Your task to perform on an android device: delete the emails in spam in the gmail app Image 0: 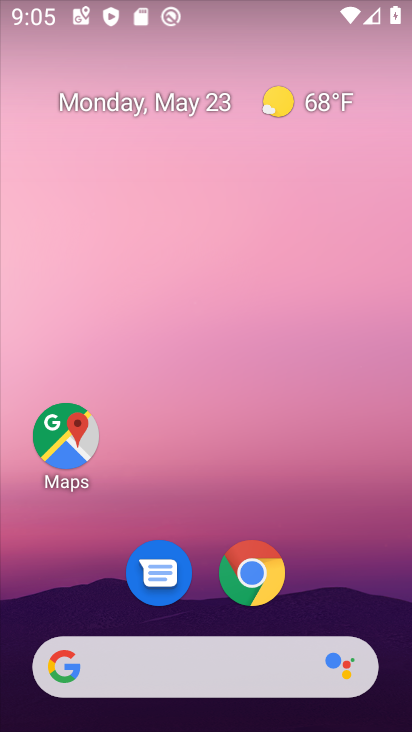
Step 0: drag from (297, 632) to (299, 71)
Your task to perform on an android device: delete the emails in spam in the gmail app Image 1: 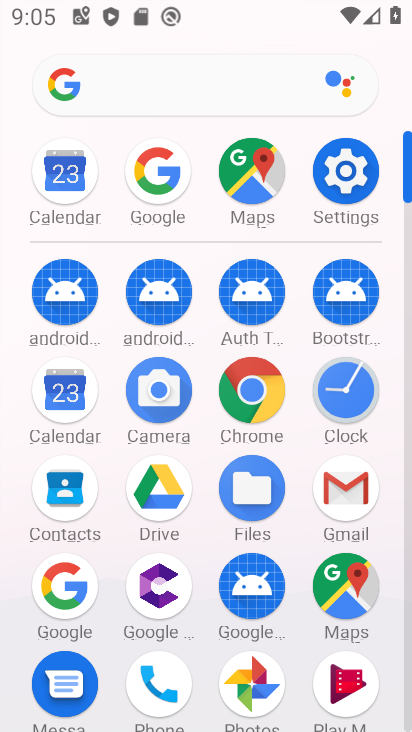
Step 1: click (359, 504)
Your task to perform on an android device: delete the emails in spam in the gmail app Image 2: 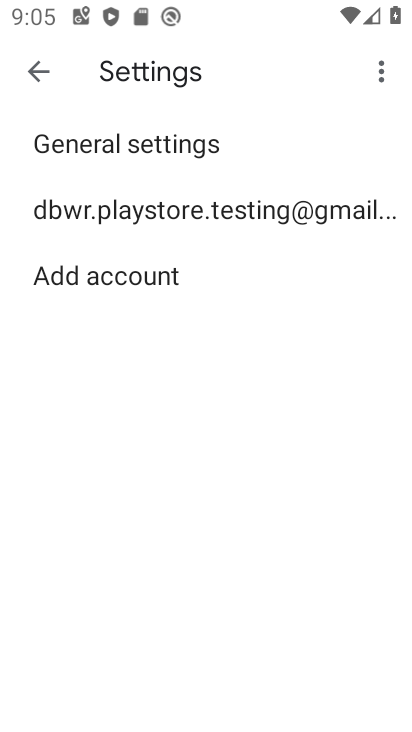
Step 2: click (26, 79)
Your task to perform on an android device: delete the emails in spam in the gmail app Image 3: 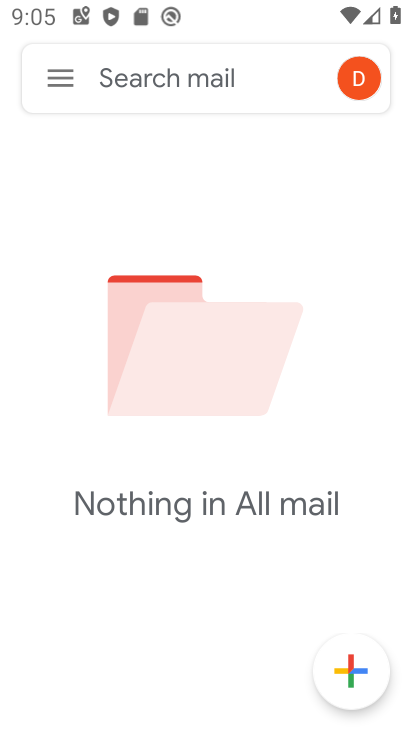
Step 3: task complete